Your task to perform on an android device: Do I have any events this weekend? Image 0: 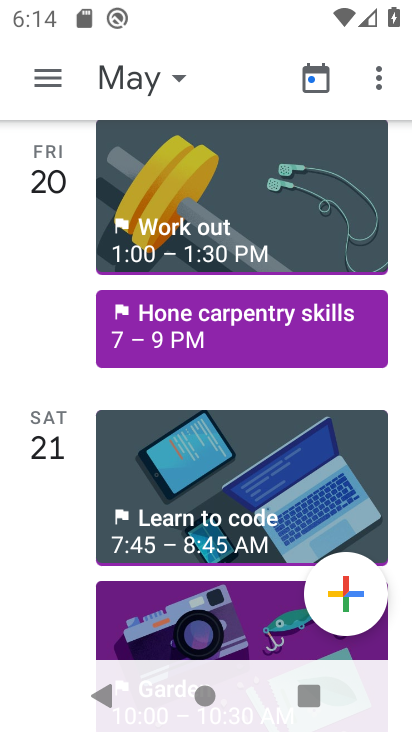
Step 0: press home button
Your task to perform on an android device: Do I have any events this weekend? Image 1: 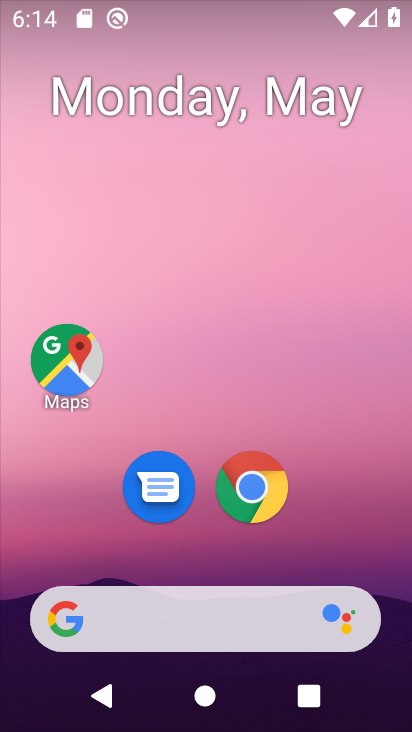
Step 1: drag from (199, 565) to (257, 93)
Your task to perform on an android device: Do I have any events this weekend? Image 2: 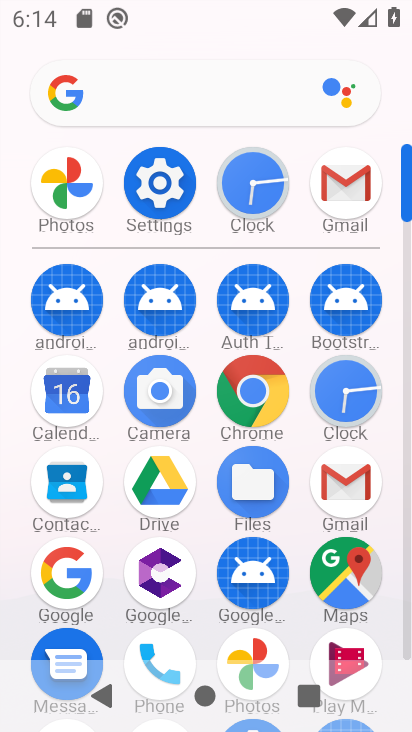
Step 2: click (65, 391)
Your task to perform on an android device: Do I have any events this weekend? Image 3: 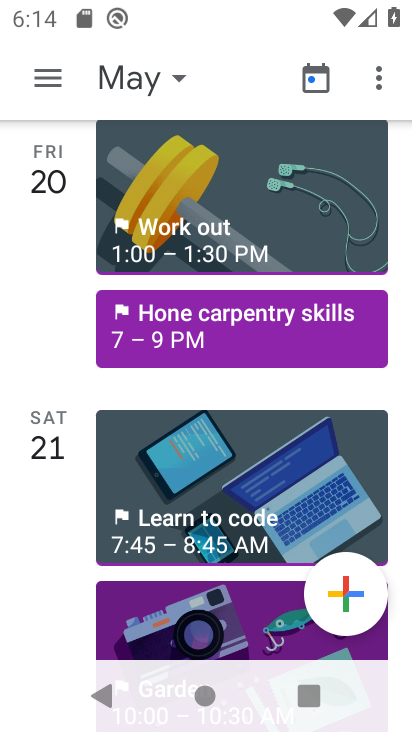
Step 3: click (35, 83)
Your task to perform on an android device: Do I have any events this weekend? Image 4: 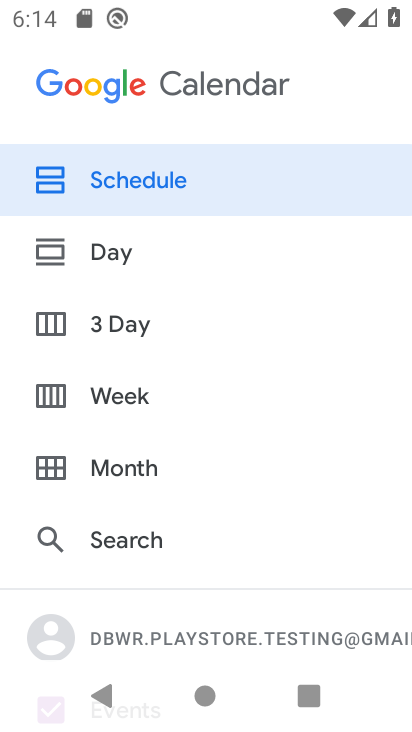
Step 4: click (77, 393)
Your task to perform on an android device: Do I have any events this weekend? Image 5: 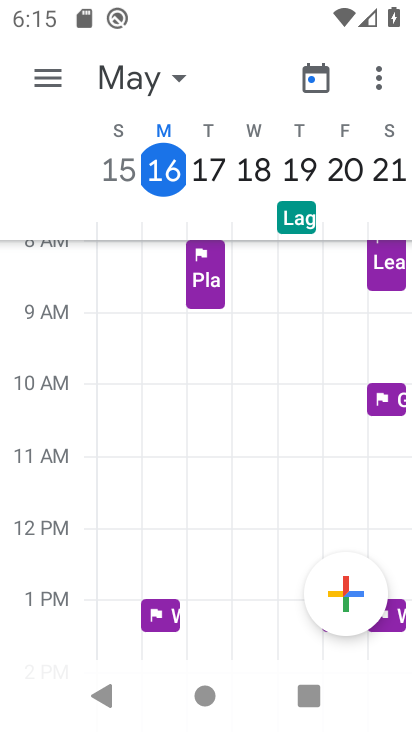
Step 5: click (151, 168)
Your task to perform on an android device: Do I have any events this weekend? Image 6: 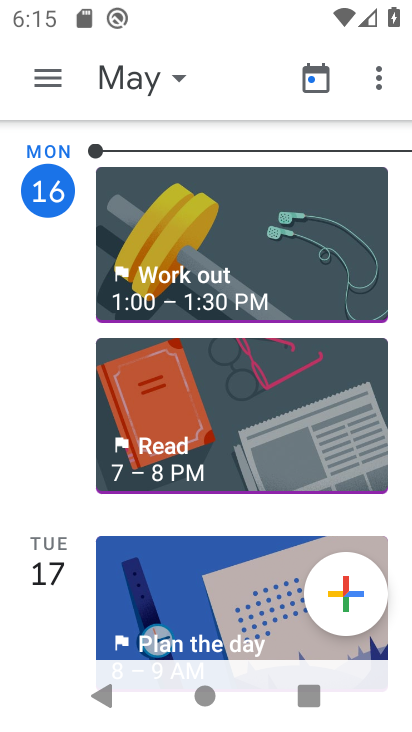
Step 6: task complete